Your task to perform on an android device: Find coffee shops on Maps Image 0: 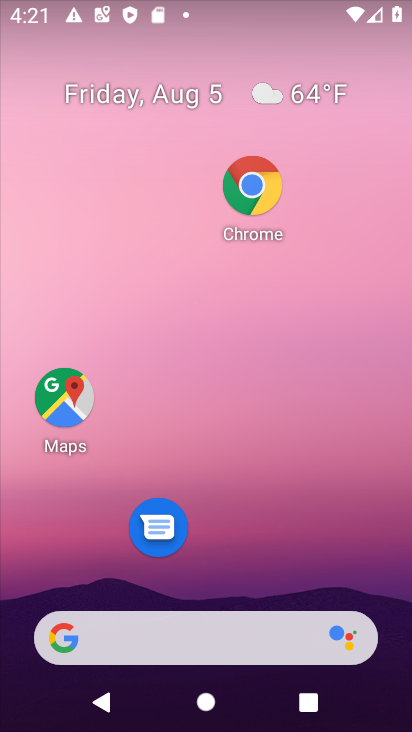
Step 0: drag from (210, 524) to (198, 182)
Your task to perform on an android device: Find coffee shops on Maps Image 1: 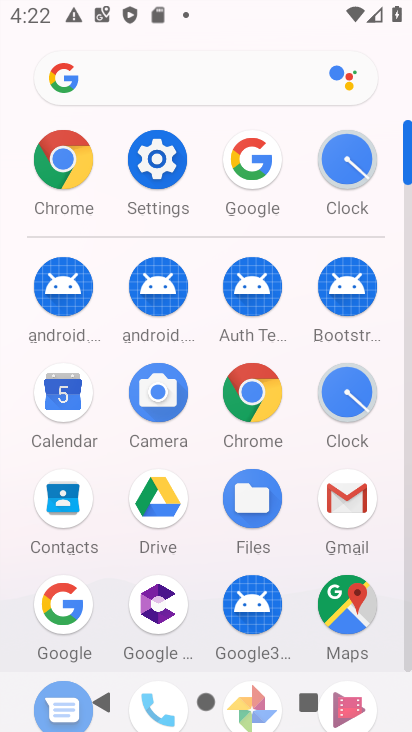
Step 1: click (365, 608)
Your task to perform on an android device: Find coffee shops on Maps Image 2: 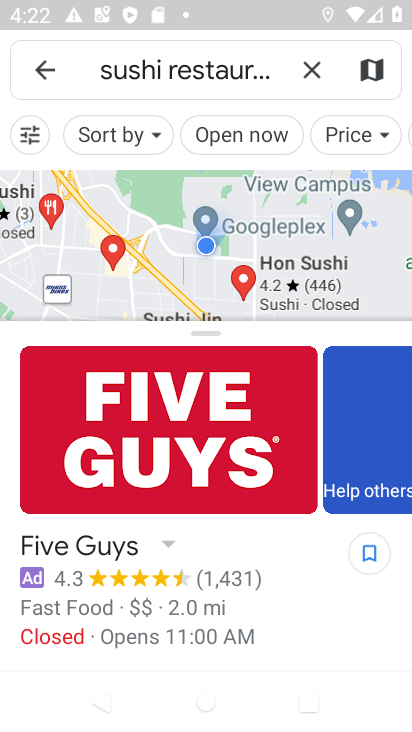
Step 2: click (314, 70)
Your task to perform on an android device: Find coffee shops on Maps Image 3: 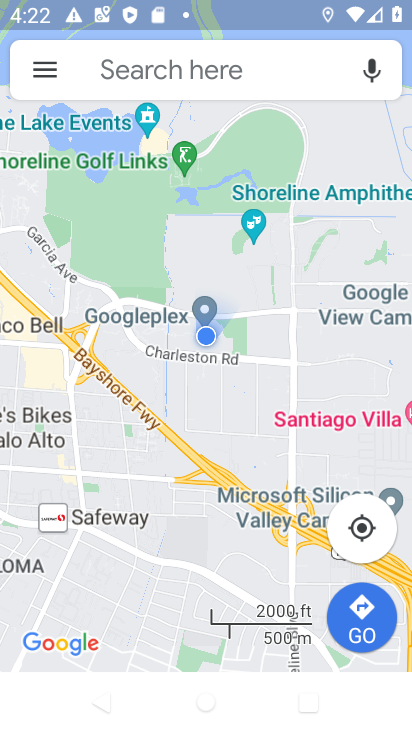
Step 3: click (254, 71)
Your task to perform on an android device: Find coffee shops on Maps Image 4: 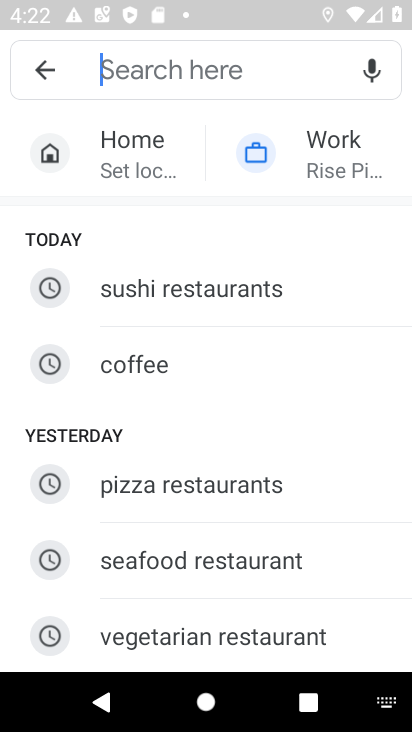
Step 4: type "Coffee shops"
Your task to perform on an android device: Find coffee shops on Maps Image 5: 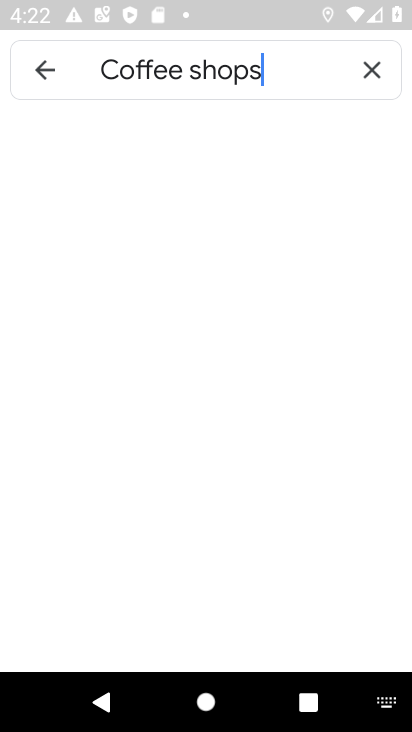
Step 5: type ""
Your task to perform on an android device: Find coffee shops on Maps Image 6: 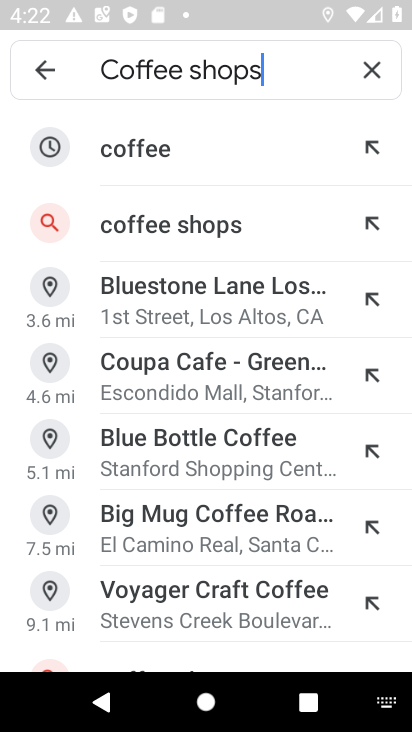
Step 6: click (179, 226)
Your task to perform on an android device: Find coffee shops on Maps Image 7: 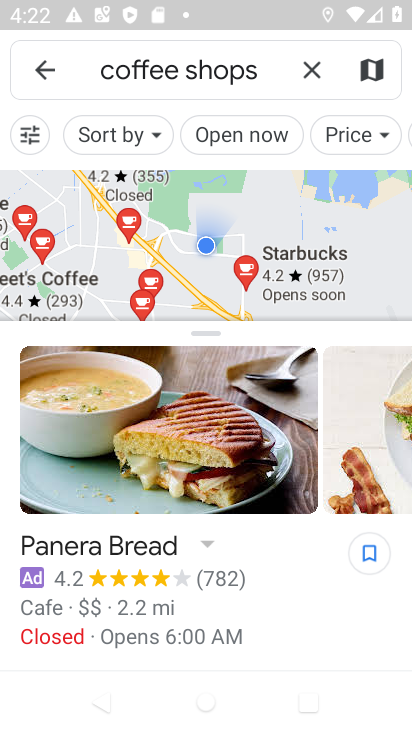
Step 7: task complete